Your task to perform on an android device: Open CNN.com Image 0: 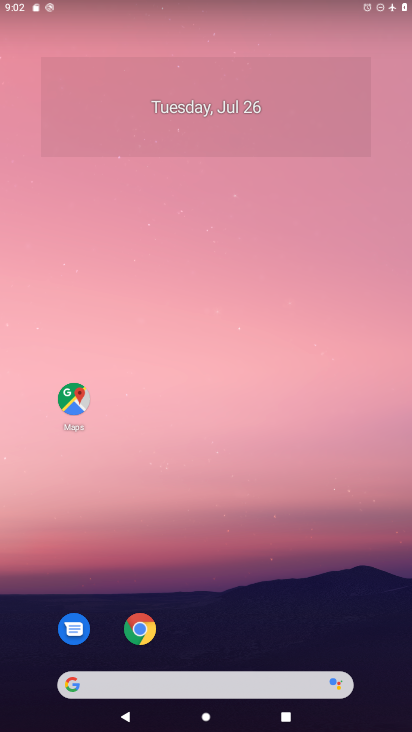
Step 0: click (146, 636)
Your task to perform on an android device: Open CNN.com Image 1: 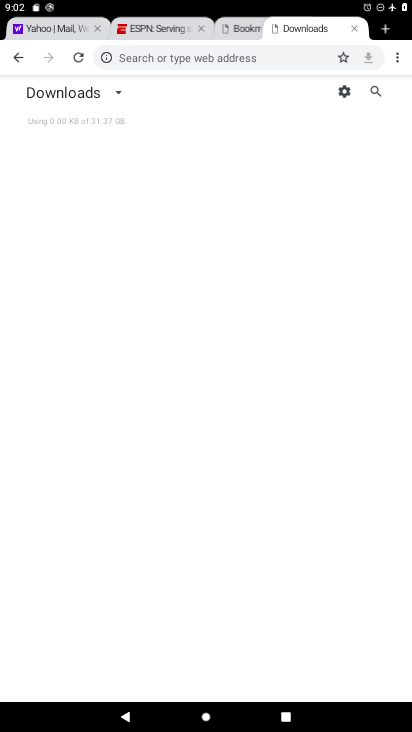
Step 1: click (387, 28)
Your task to perform on an android device: Open CNN.com Image 2: 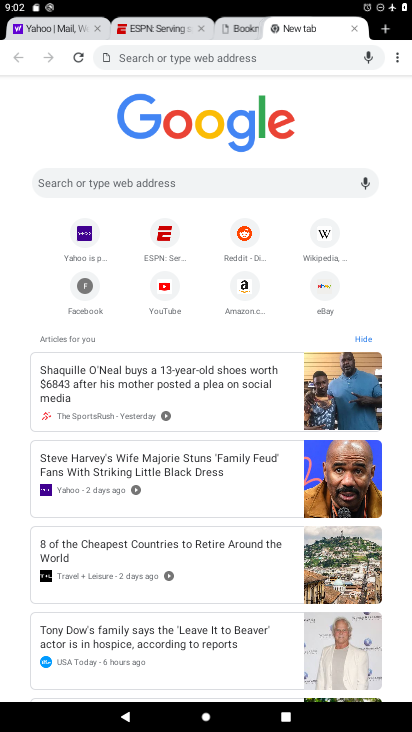
Step 2: click (203, 188)
Your task to perform on an android device: Open CNN.com Image 3: 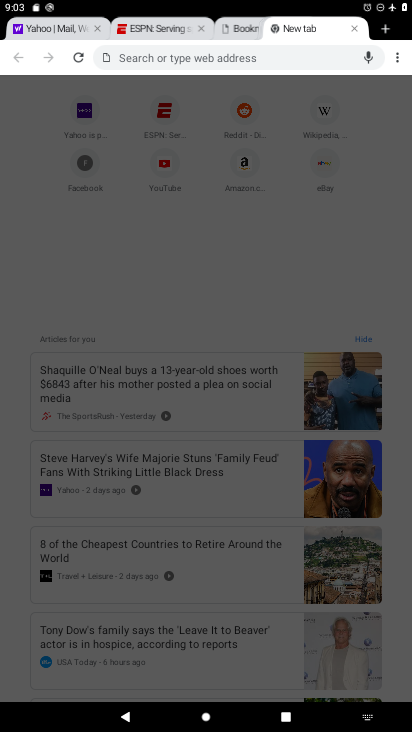
Step 3: type "CNN.com"
Your task to perform on an android device: Open CNN.com Image 4: 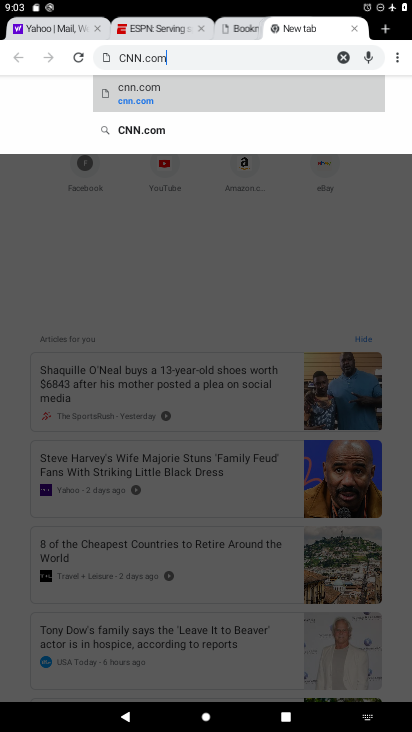
Step 4: type ""
Your task to perform on an android device: Open CNN.com Image 5: 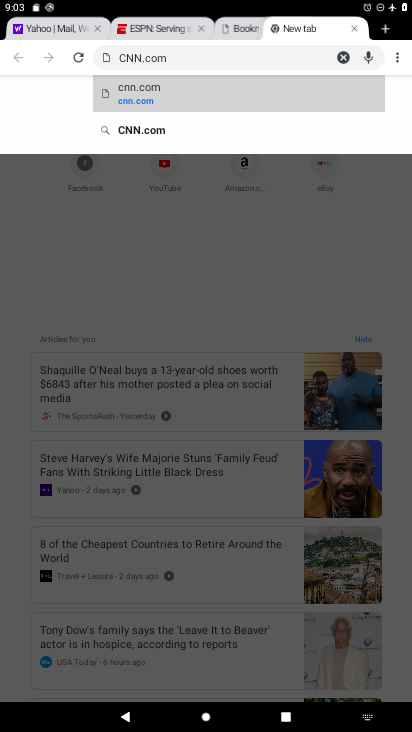
Step 5: click (143, 85)
Your task to perform on an android device: Open CNN.com Image 6: 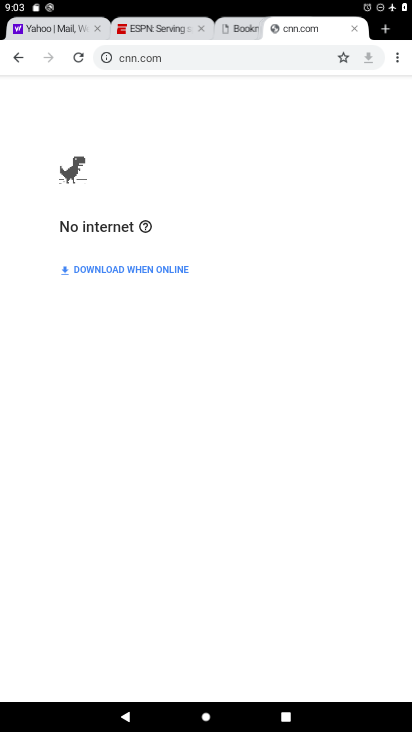
Step 6: task complete